Your task to perform on an android device: Search for sushi restaurants on Maps Image 0: 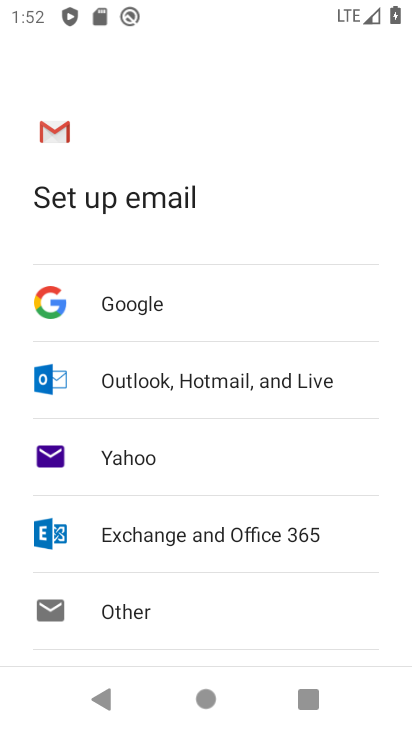
Step 0: press home button
Your task to perform on an android device: Search for sushi restaurants on Maps Image 1: 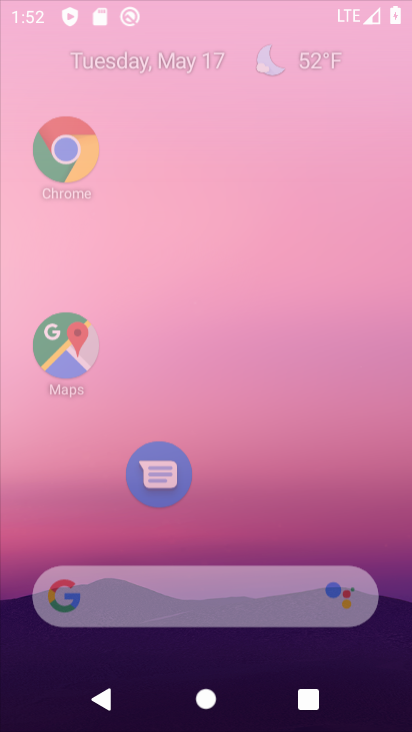
Step 1: press home button
Your task to perform on an android device: Search for sushi restaurants on Maps Image 2: 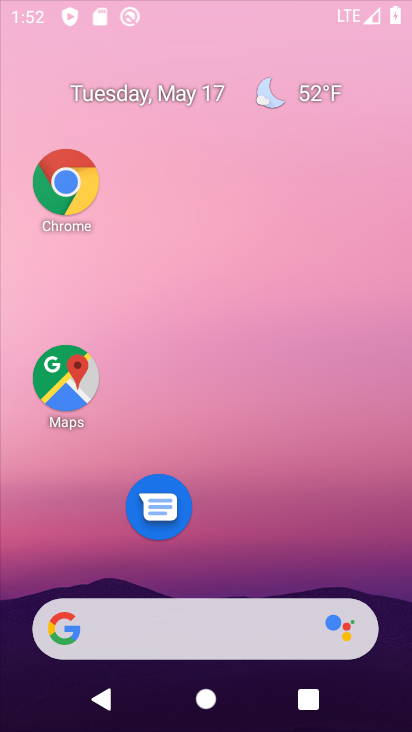
Step 2: press home button
Your task to perform on an android device: Search for sushi restaurants on Maps Image 3: 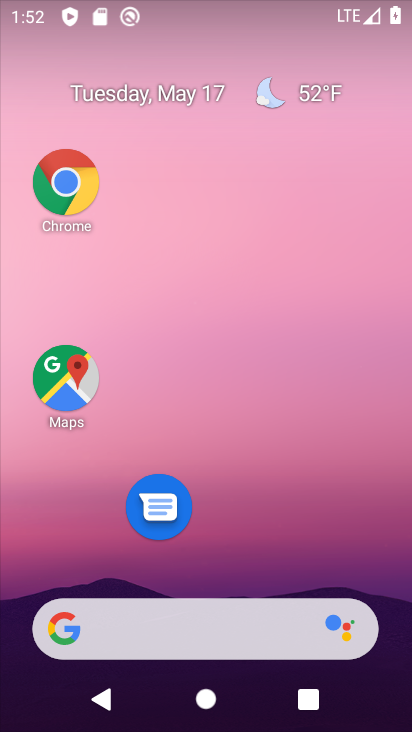
Step 3: drag from (252, 647) to (108, 5)
Your task to perform on an android device: Search for sushi restaurants on Maps Image 4: 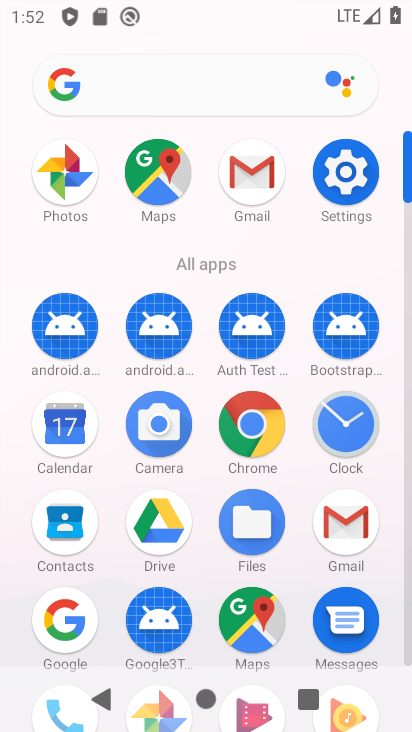
Step 4: drag from (230, 626) to (153, 7)
Your task to perform on an android device: Search for sushi restaurants on Maps Image 5: 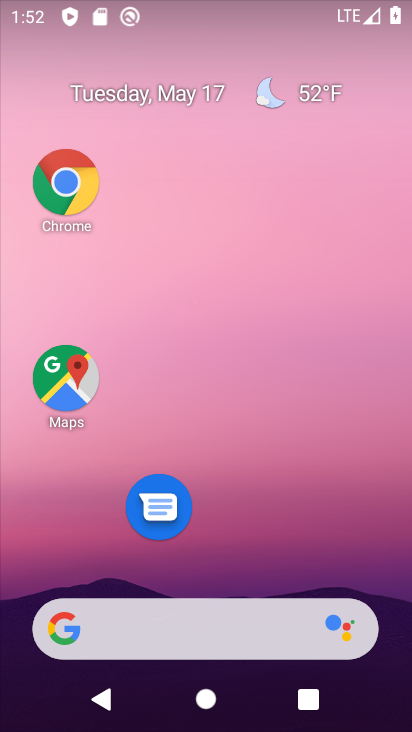
Step 5: drag from (254, 643) to (127, 2)
Your task to perform on an android device: Search for sushi restaurants on Maps Image 6: 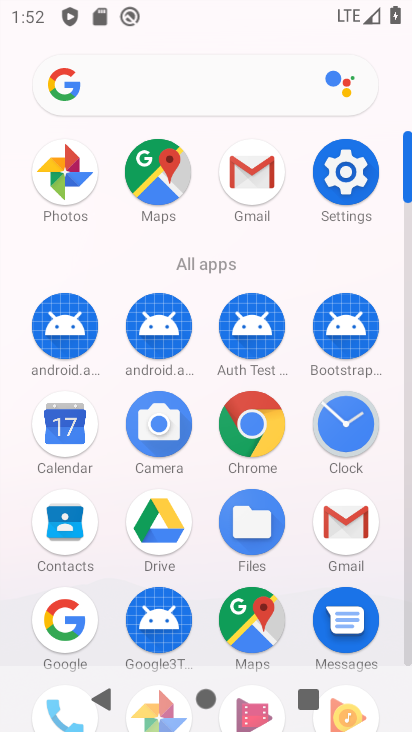
Step 6: click (244, 615)
Your task to perform on an android device: Search for sushi restaurants on Maps Image 7: 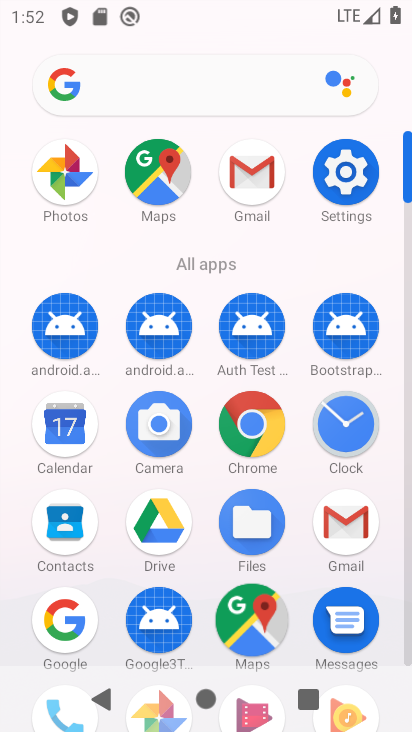
Step 7: click (244, 615)
Your task to perform on an android device: Search for sushi restaurants on Maps Image 8: 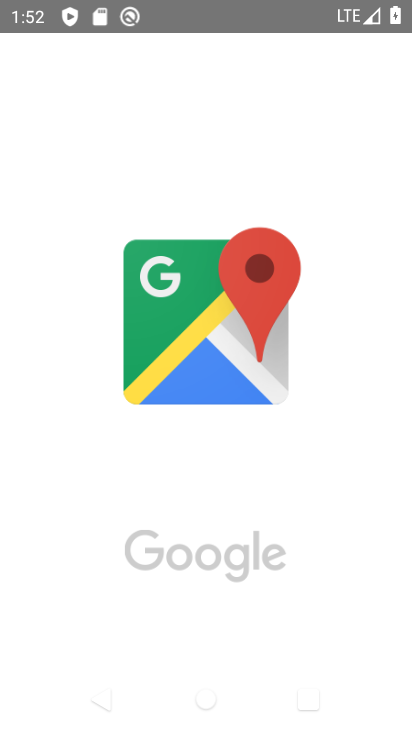
Step 8: click (246, 614)
Your task to perform on an android device: Search for sushi restaurants on Maps Image 9: 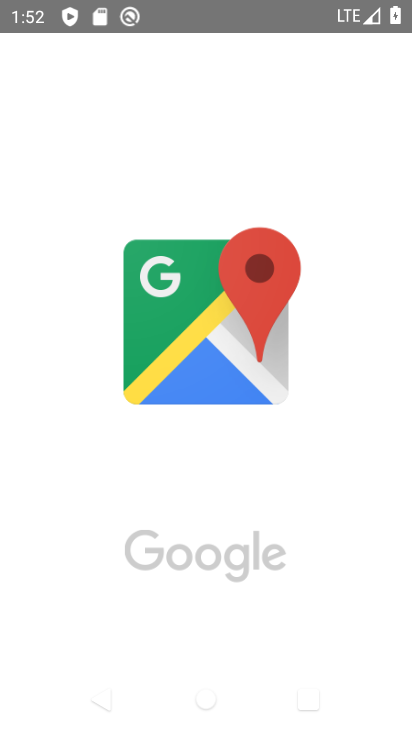
Step 9: click (246, 609)
Your task to perform on an android device: Search for sushi restaurants on Maps Image 10: 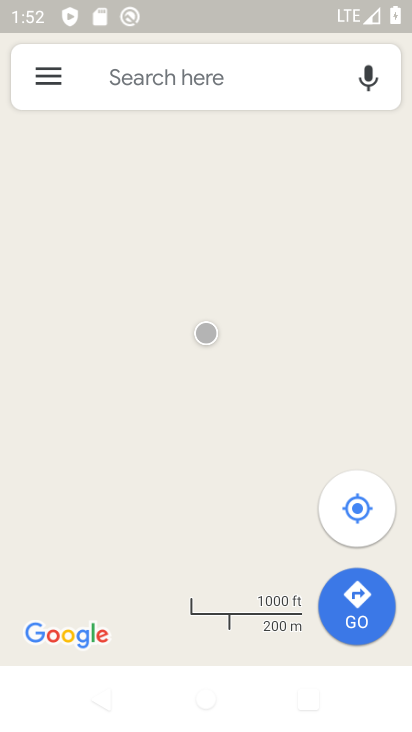
Step 10: click (109, 80)
Your task to perform on an android device: Search for sushi restaurants on Maps Image 11: 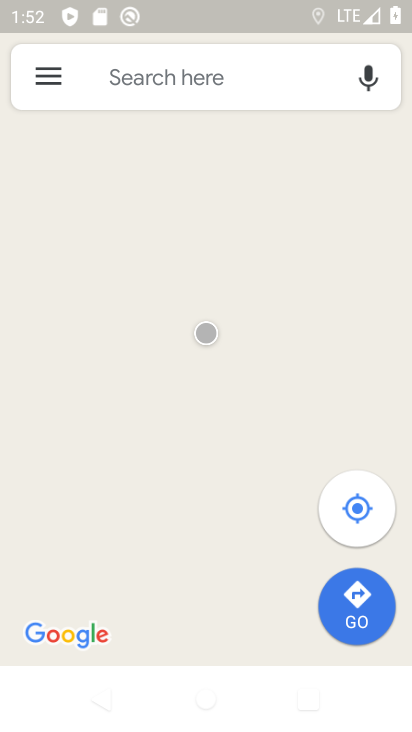
Step 11: click (109, 76)
Your task to perform on an android device: Search for sushi restaurants on Maps Image 12: 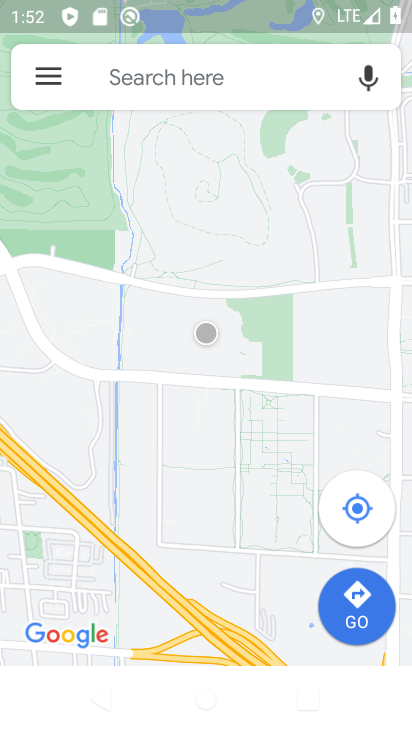
Step 12: click (109, 75)
Your task to perform on an android device: Search for sushi restaurants on Maps Image 13: 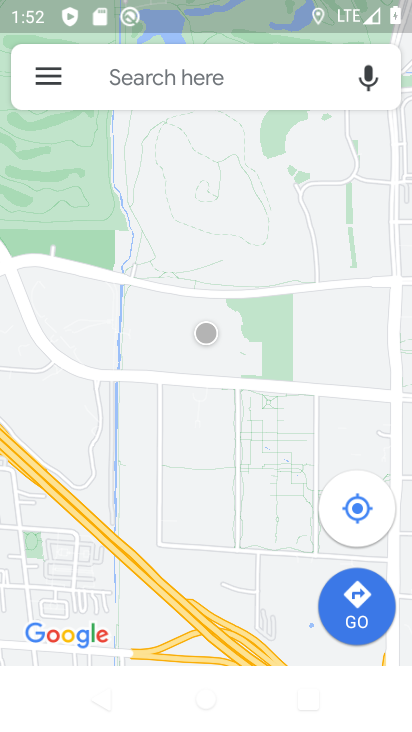
Step 13: click (109, 73)
Your task to perform on an android device: Search for sushi restaurants on Maps Image 14: 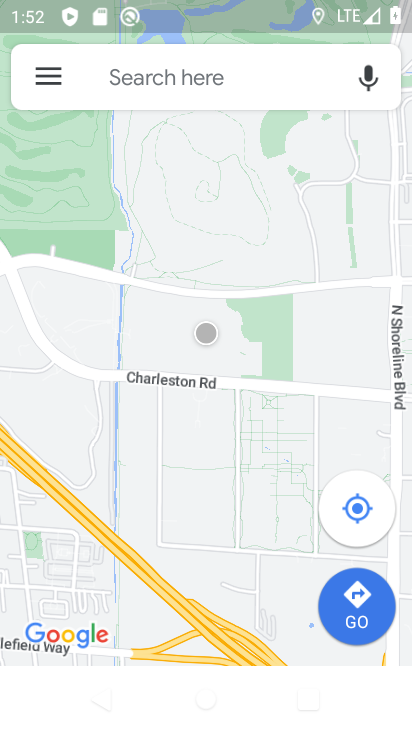
Step 14: click (109, 71)
Your task to perform on an android device: Search for sushi restaurants on Maps Image 15: 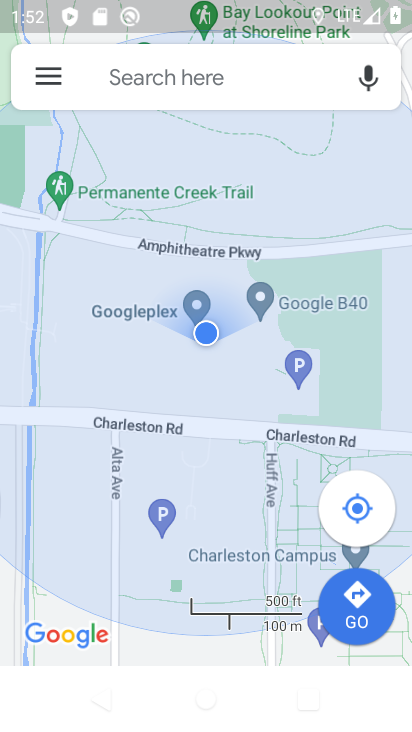
Step 15: click (114, 77)
Your task to perform on an android device: Search for sushi restaurants on Maps Image 16: 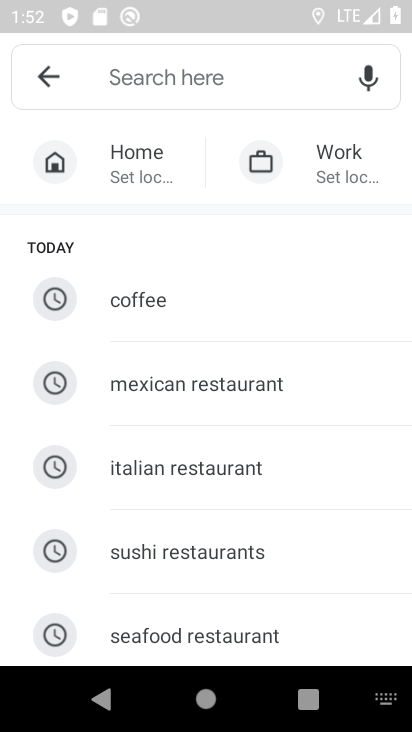
Step 16: type "shushi restaurants"
Your task to perform on an android device: Search for sushi restaurants on Maps Image 17: 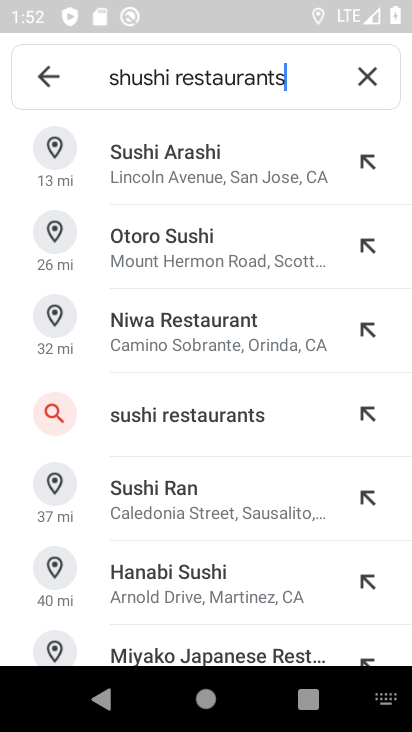
Step 17: click (170, 408)
Your task to perform on an android device: Search for sushi restaurants on Maps Image 18: 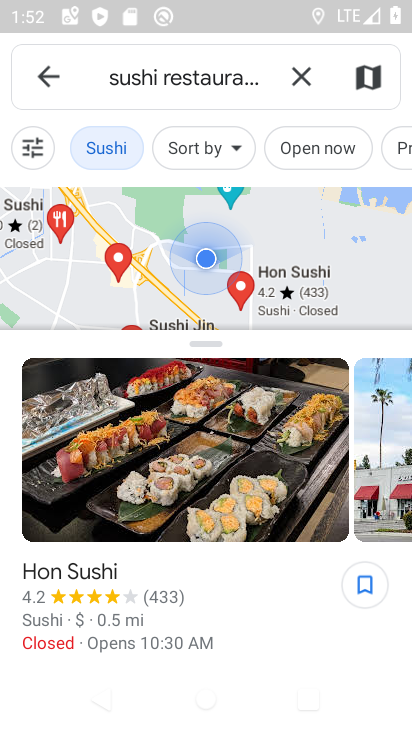
Step 18: task complete